Your task to perform on an android device: change the clock display to show seconds Image 0: 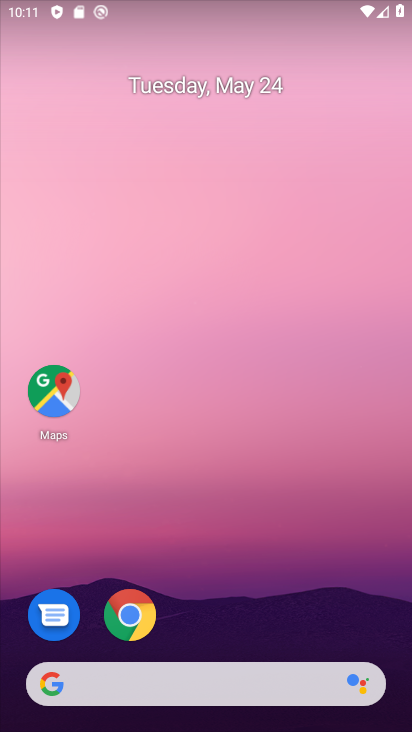
Step 0: drag from (261, 603) to (276, 164)
Your task to perform on an android device: change the clock display to show seconds Image 1: 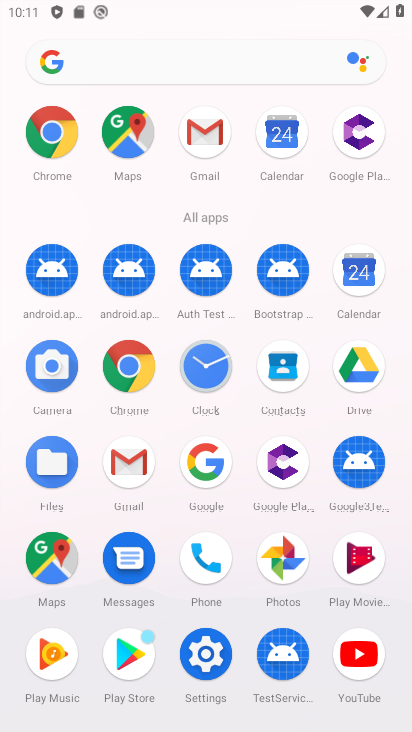
Step 1: click (216, 368)
Your task to perform on an android device: change the clock display to show seconds Image 2: 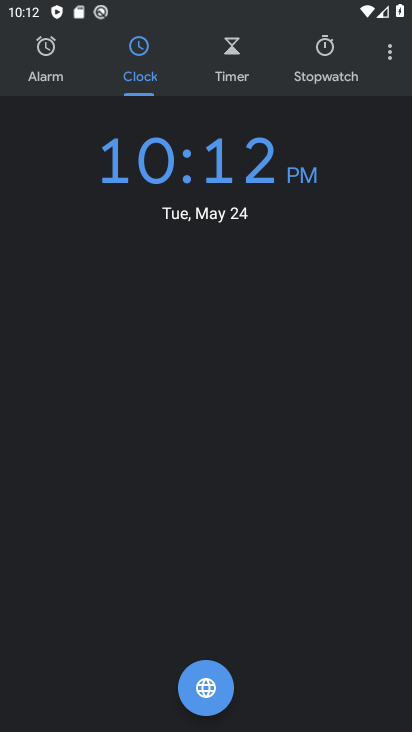
Step 2: click (378, 50)
Your task to perform on an android device: change the clock display to show seconds Image 3: 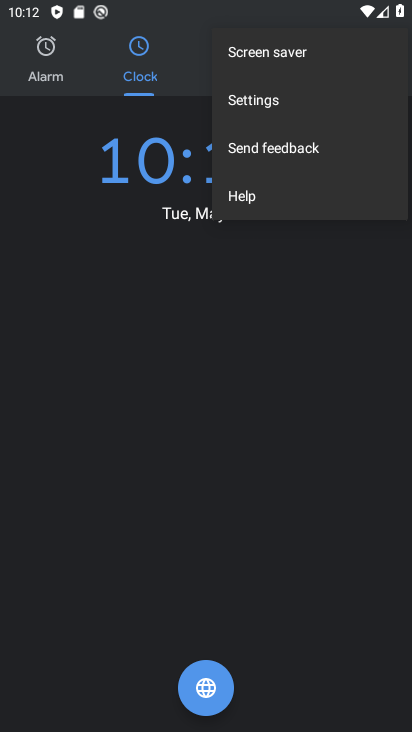
Step 3: click (286, 100)
Your task to perform on an android device: change the clock display to show seconds Image 4: 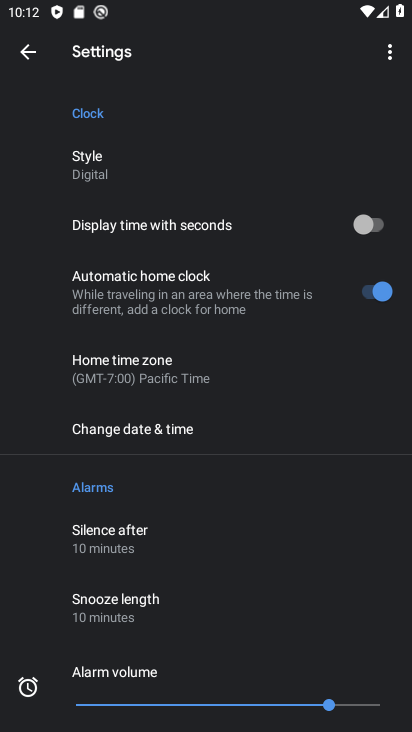
Step 4: drag from (197, 588) to (186, 209)
Your task to perform on an android device: change the clock display to show seconds Image 5: 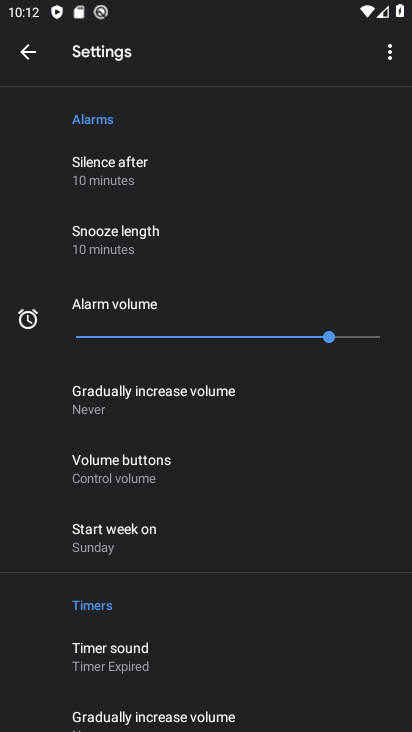
Step 5: drag from (218, 530) to (214, 179)
Your task to perform on an android device: change the clock display to show seconds Image 6: 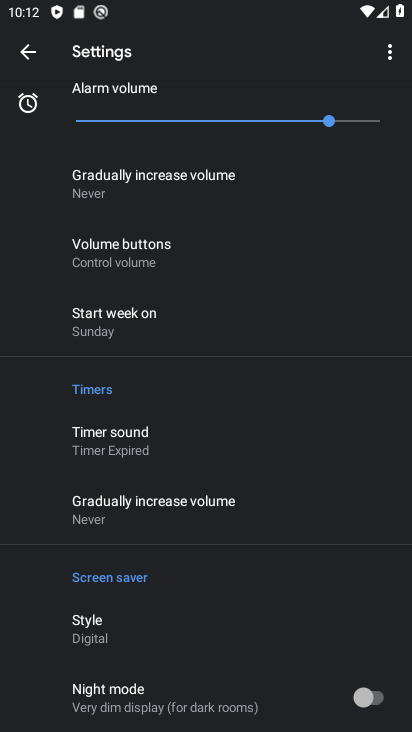
Step 6: drag from (226, 531) to (227, 200)
Your task to perform on an android device: change the clock display to show seconds Image 7: 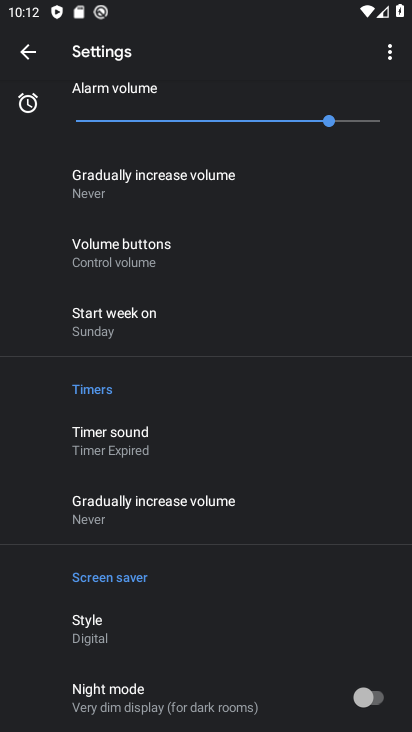
Step 7: drag from (278, 213) to (218, 532)
Your task to perform on an android device: change the clock display to show seconds Image 8: 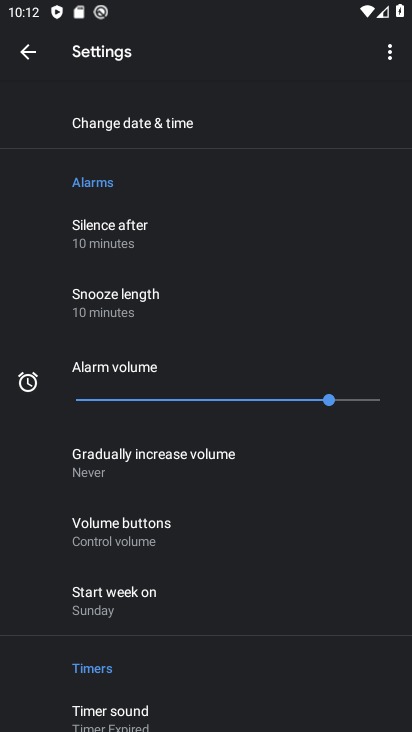
Step 8: drag from (218, 449) to (199, 547)
Your task to perform on an android device: change the clock display to show seconds Image 9: 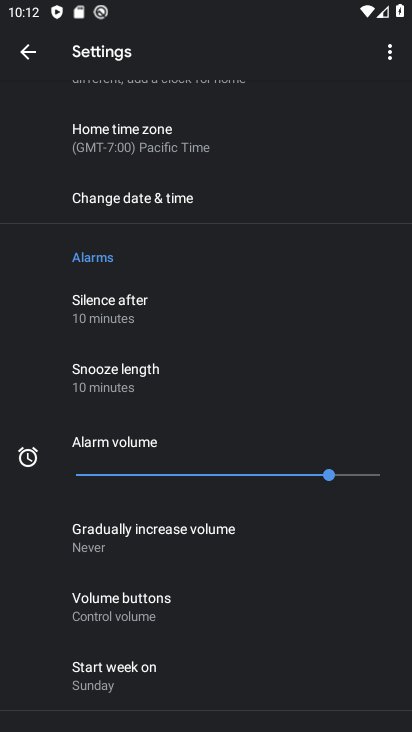
Step 9: click (194, 190)
Your task to perform on an android device: change the clock display to show seconds Image 10: 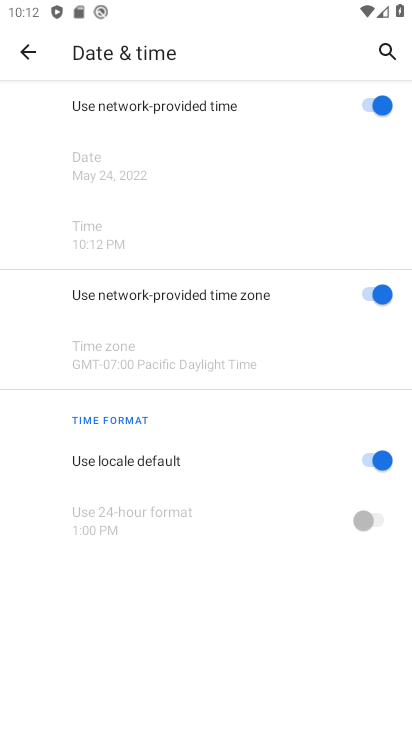
Step 10: press back button
Your task to perform on an android device: change the clock display to show seconds Image 11: 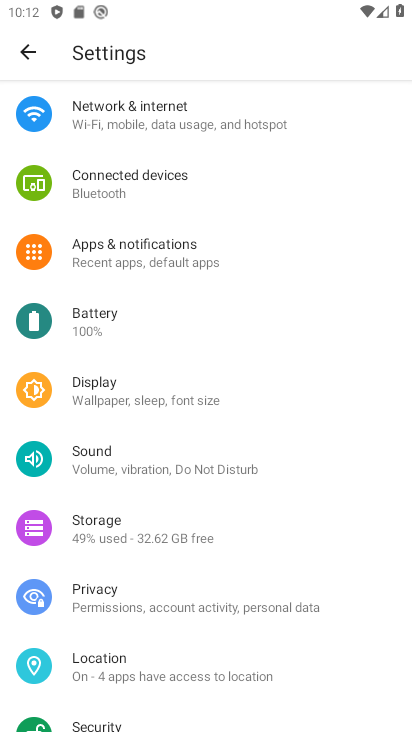
Step 11: press back button
Your task to perform on an android device: change the clock display to show seconds Image 12: 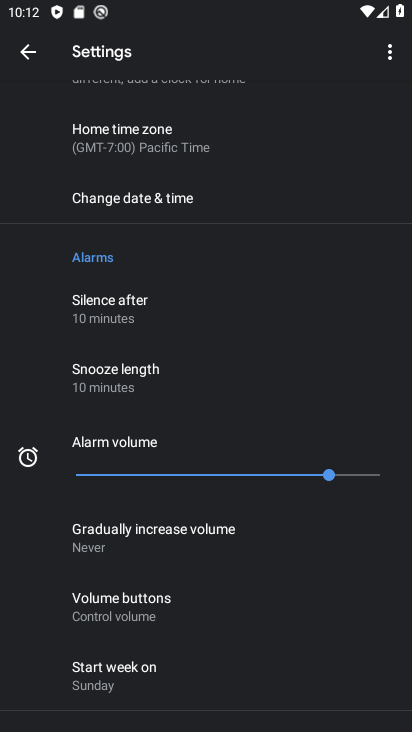
Step 12: drag from (235, 189) to (158, 590)
Your task to perform on an android device: change the clock display to show seconds Image 13: 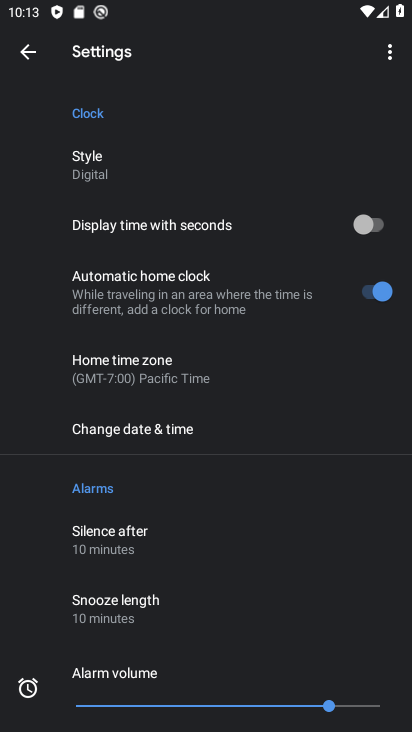
Step 13: click (361, 230)
Your task to perform on an android device: change the clock display to show seconds Image 14: 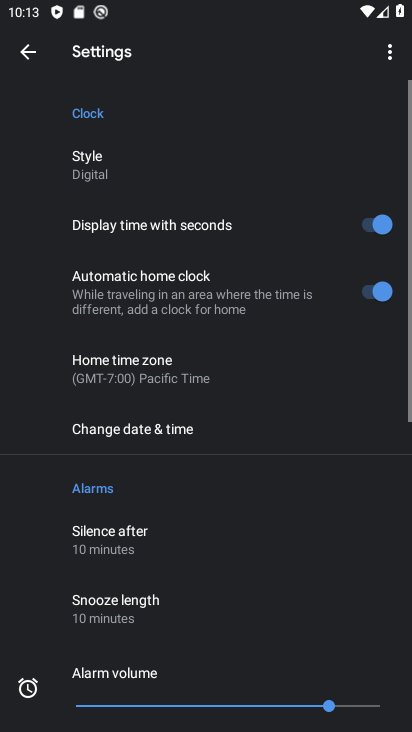
Step 14: click (256, 229)
Your task to perform on an android device: change the clock display to show seconds Image 15: 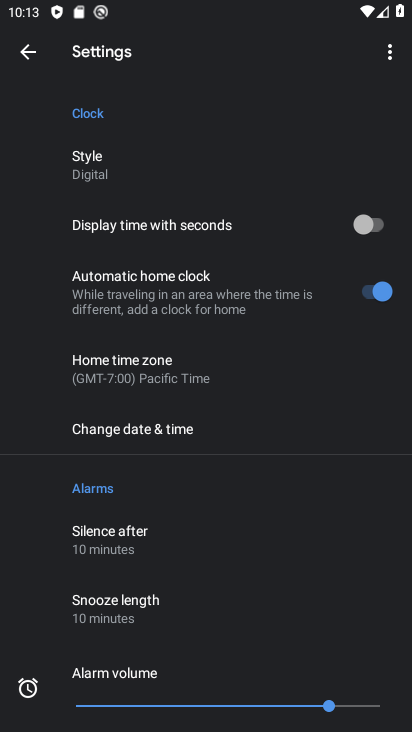
Step 15: task complete